Your task to perform on an android device: Show me the best rated 4K TV on Walmart. Image 0: 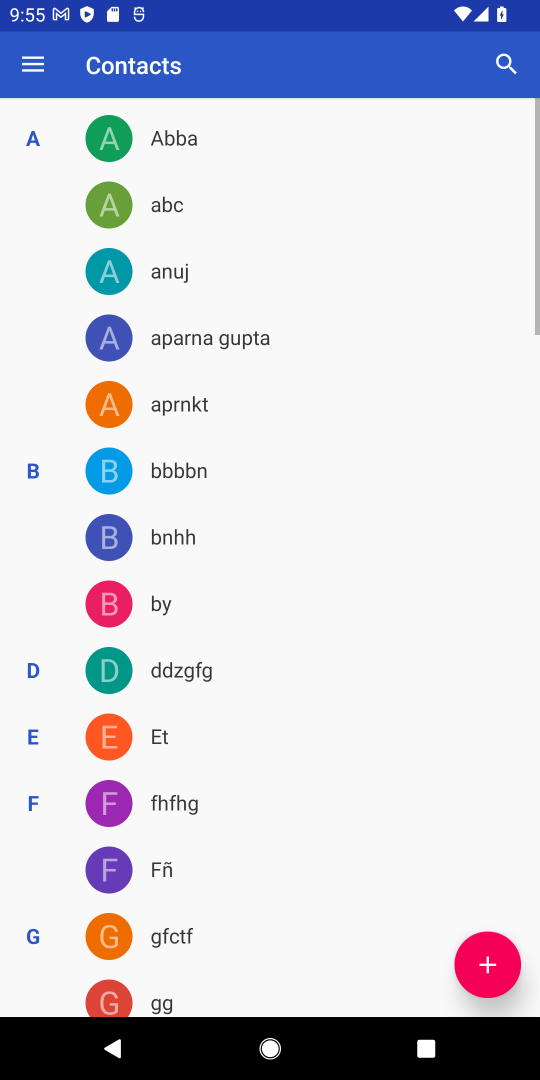
Step 0: press home button
Your task to perform on an android device: Show me the best rated 4K TV on Walmart. Image 1: 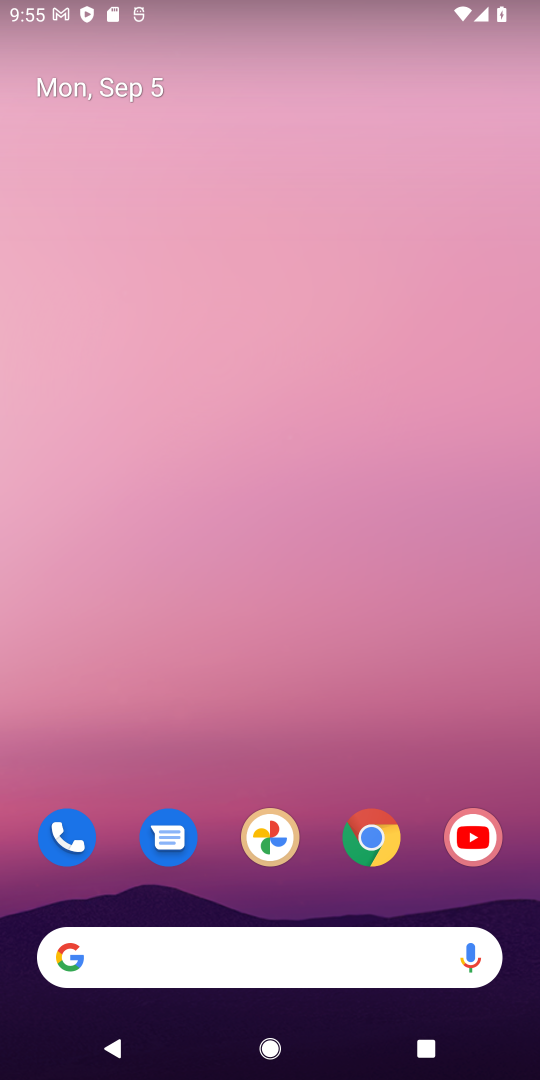
Step 1: drag from (312, 799) to (262, 13)
Your task to perform on an android device: Show me the best rated 4K TV on Walmart. Image 2: 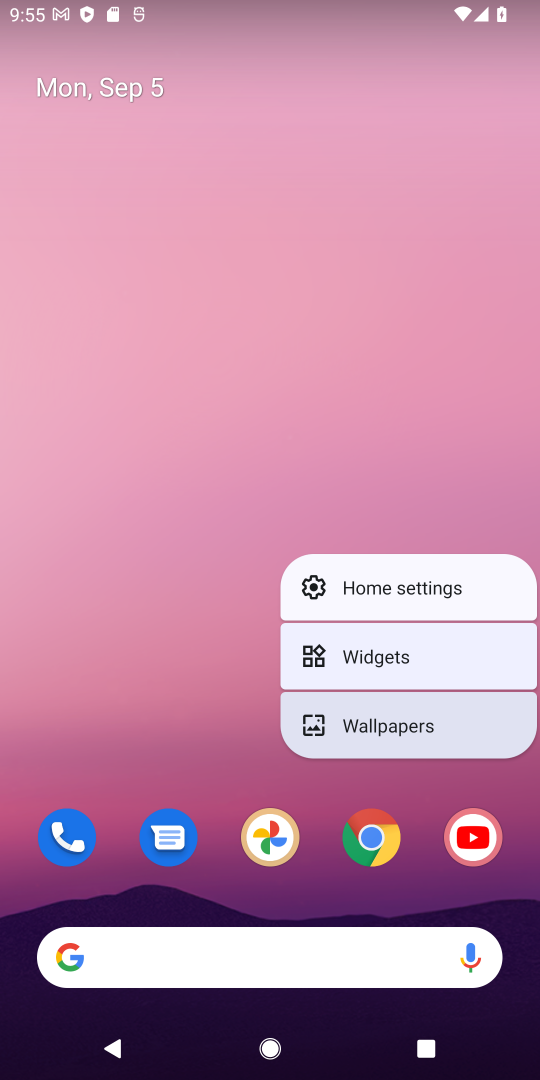
Step 2: click (209, 782)
Your task to perform on an android device: Show me the best rated 4K TV on Walmart. Image 3: 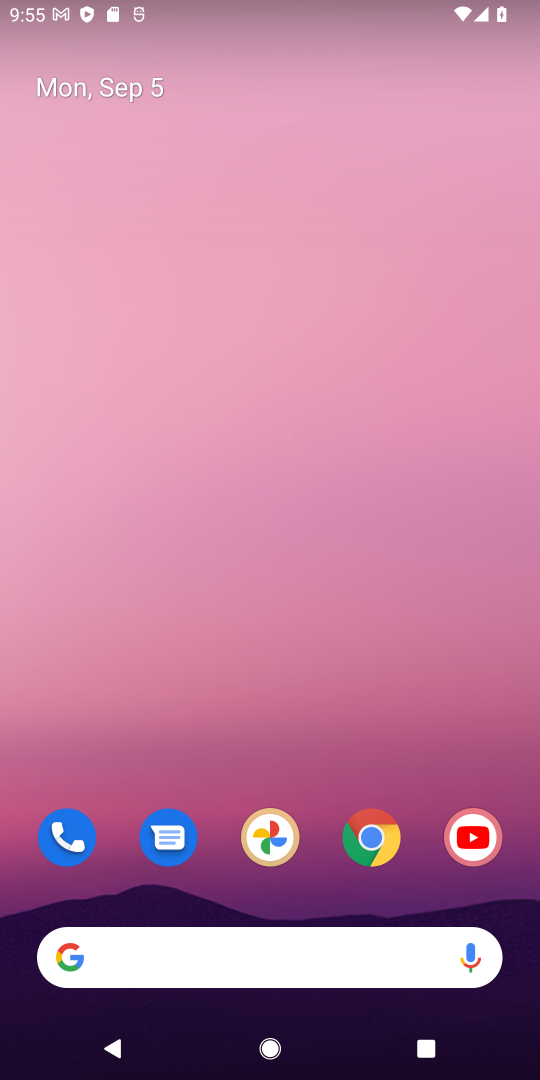
Step 3: drag from (222, 697) to (234, 26)
Your task to perform on an android device: Show me the best rated 4K TV on Walmart. Image 4: 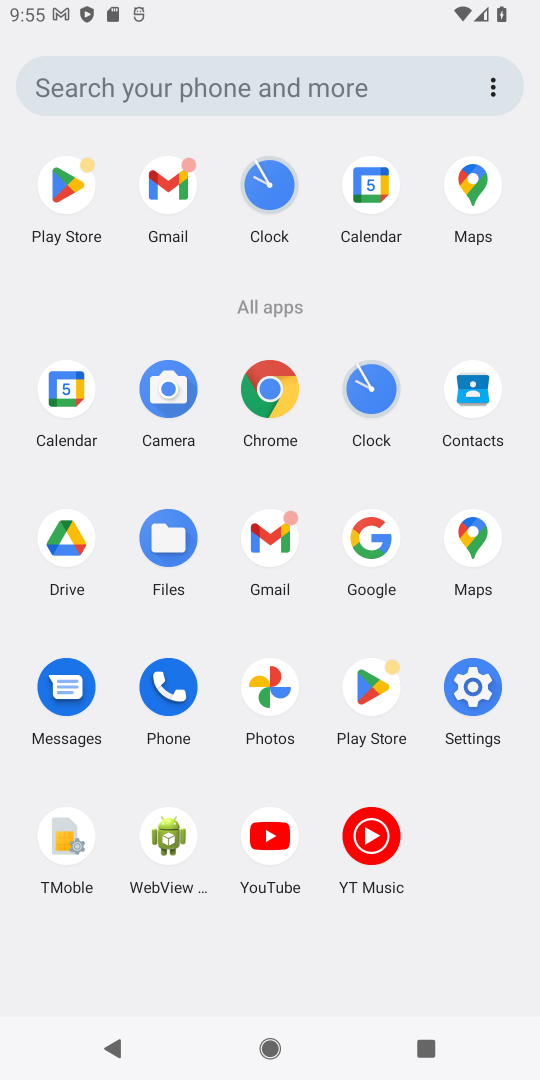
Step 4: click (263, 379)
Your task to perform on an android device: Show me the best rated 4K TV on Walmart. Image 5: 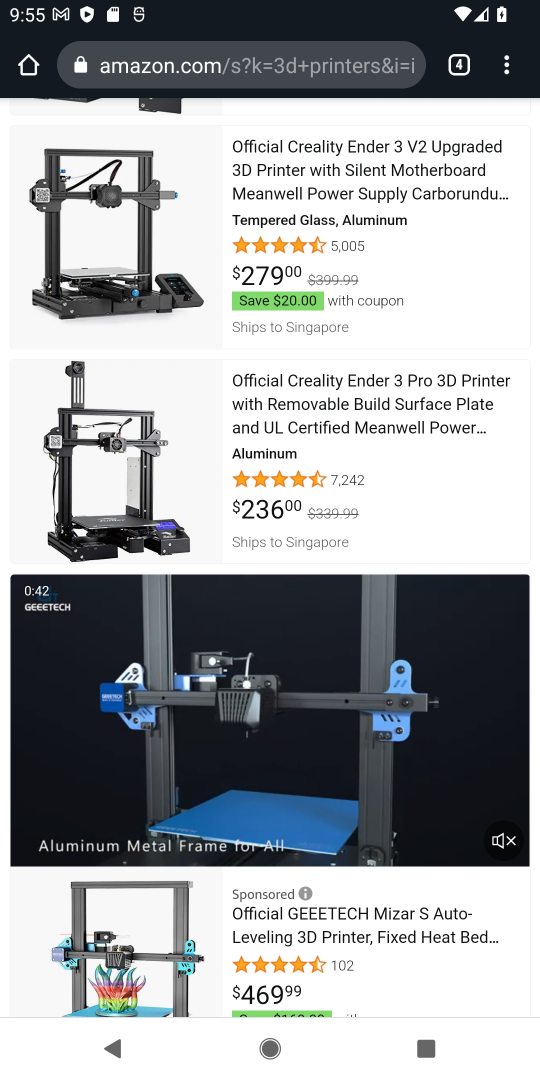
Step 5: click (459, 62)
Your task to perform on an android device: Show me the best rated 4K TV on Walmart. Image 6: 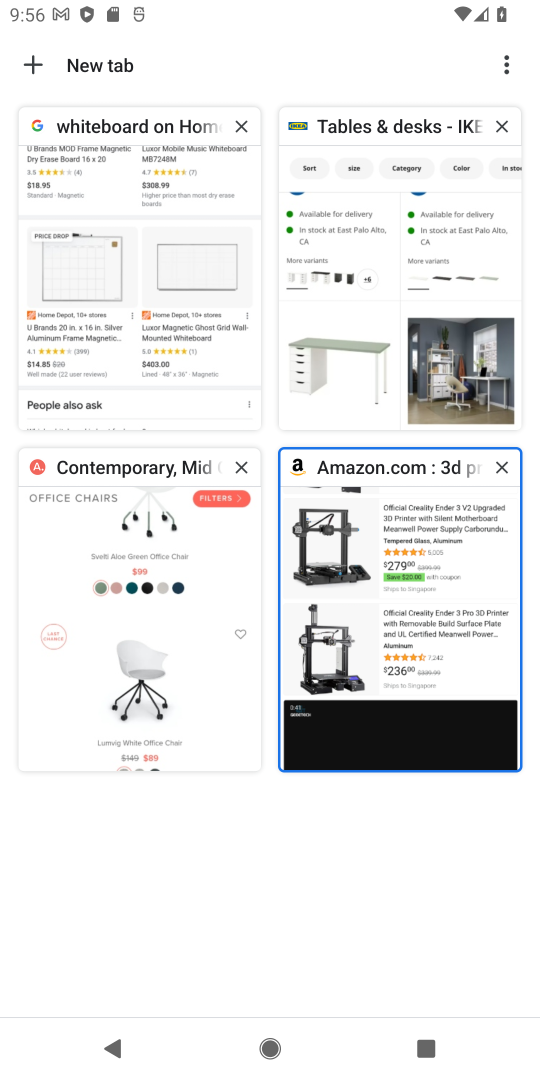
Step 6: click (499, 470)
Your task to perform on an android device: Show me the best rated 4K TV on Walmart. Image 7: 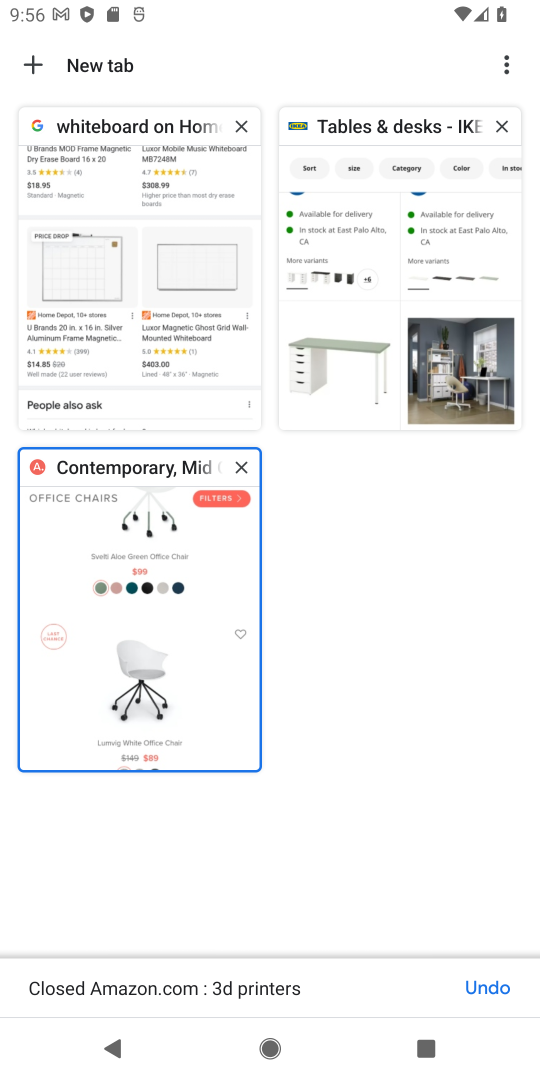
Step 7: click (243, 473)
Your task to perform on an android device: Show me the best rated 4K TV on Walmart. Image 8: 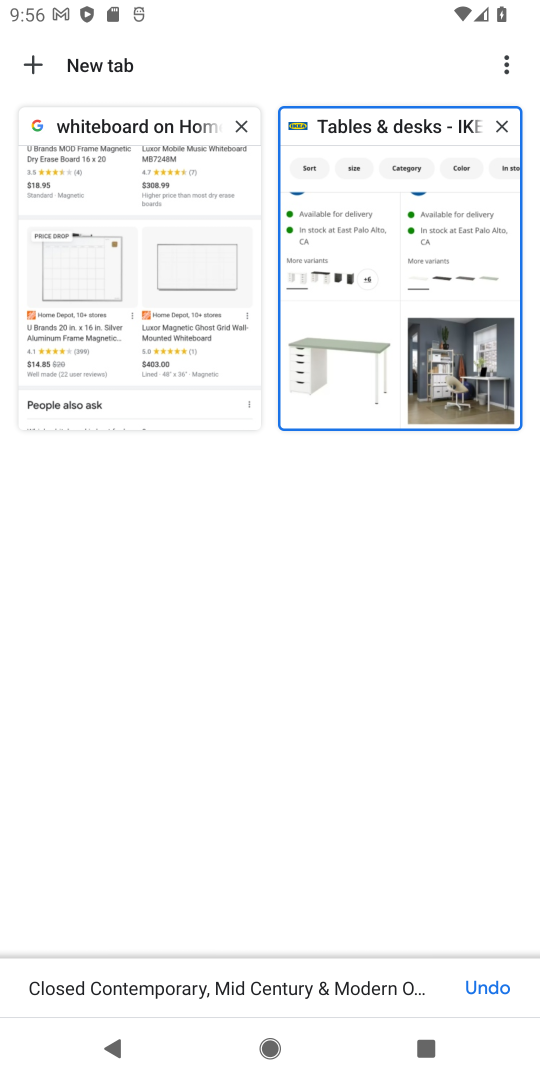
Step 8: click (502, 126)
Your task to perform on an android device: Show me the best rated 4K TV on Walmart. Image 9: 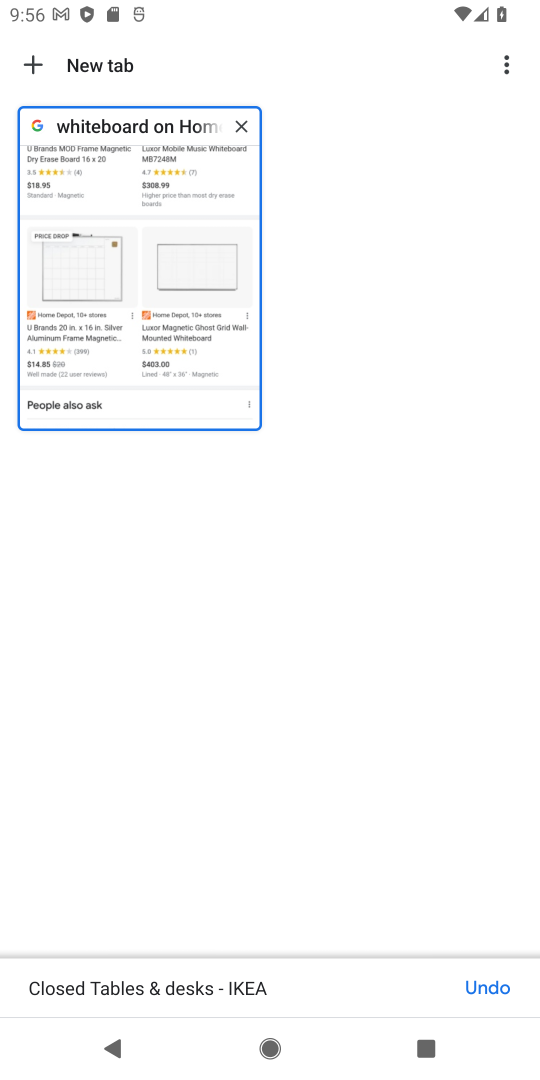
Step 9: click (240, 126)
Your task to perform on an android device: Show me the best rated 4K TV on Walmart. Image 10: 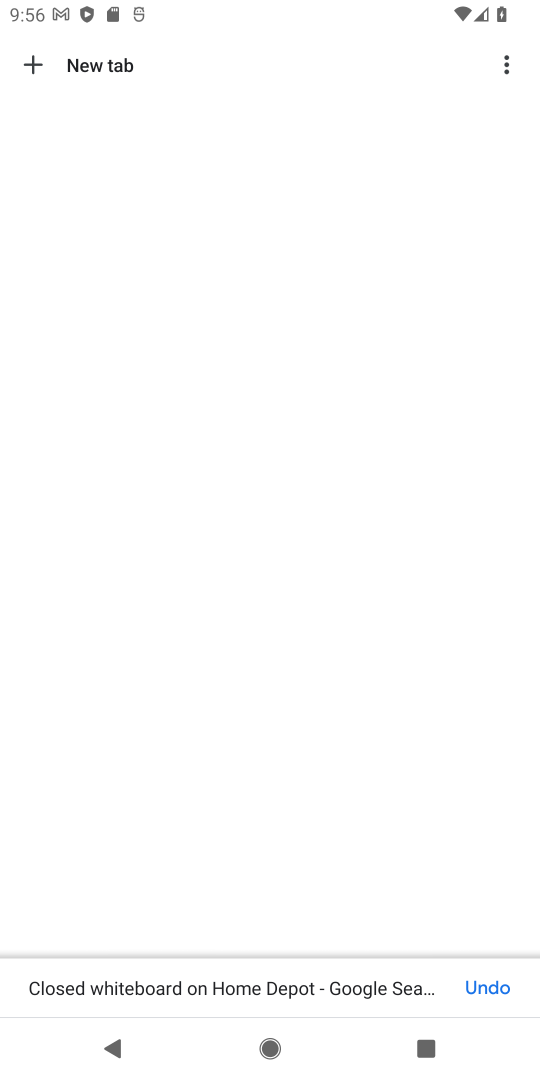
Step 10: click (44, 69)
Your task to perform on an android device: Show me the best rated 4K TV on Walmart. Image 11: 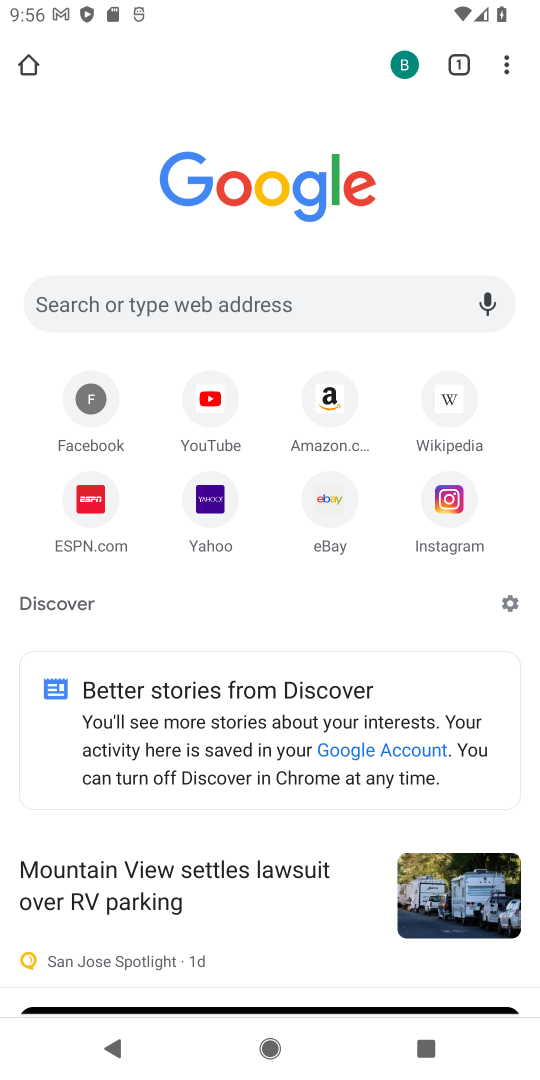
Step 11: click (132, 299)
Your task to perform on an android device: Show me the best rated 4K TV on Walmart. Image 12: 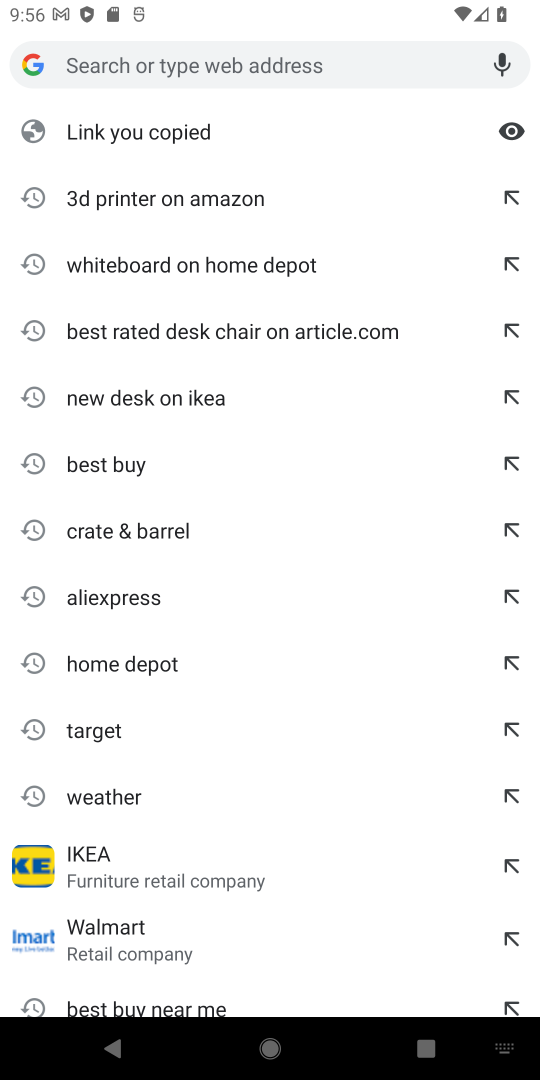
Step 12: type "4K TV on Walmart"
Your task to perform on an android device: Show me the best rated 4K TV on Walmart. Image 13: 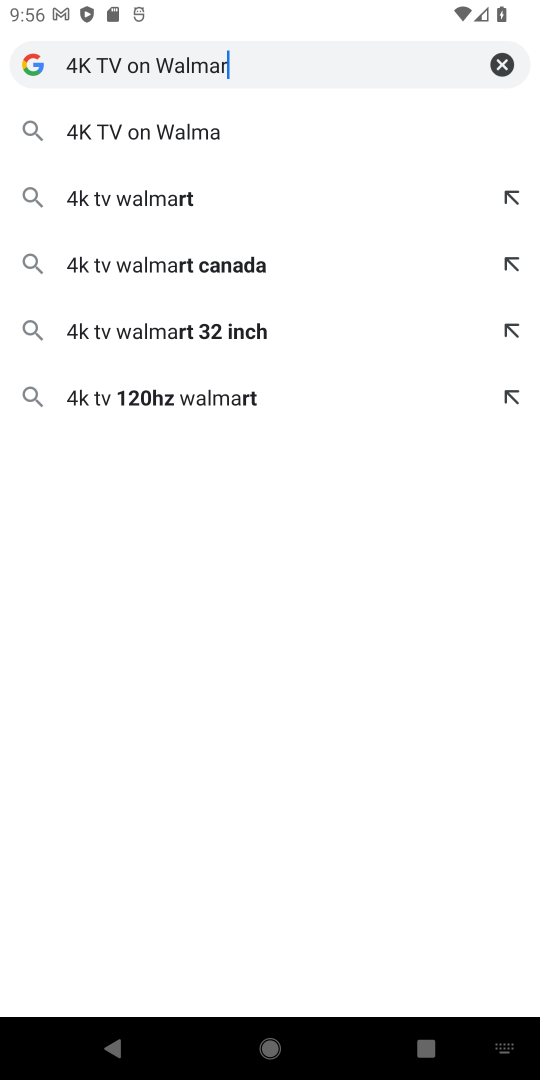
Step 13: type ""
Your task to perform on an android device: Show me the best rated 4K TV on Walmart. Image 14: 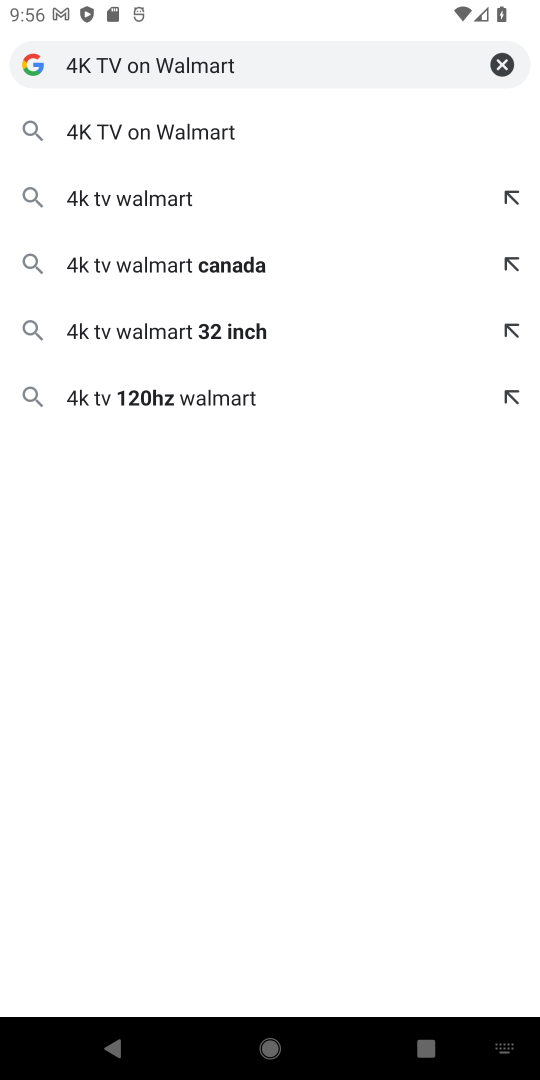
Step 14: click (164, 126)
Your task to perform on an android device: Show me the best rated 4K TV on Walmart. Image 15: 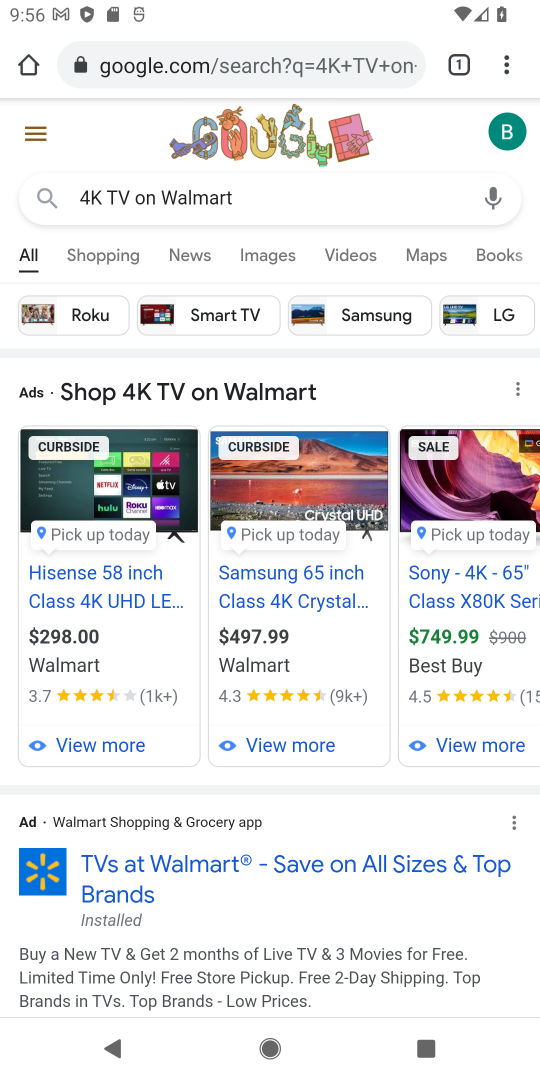
Step 15: task complete